Your task to perform on an android device: uninstall "LinkedIn" Image 0: 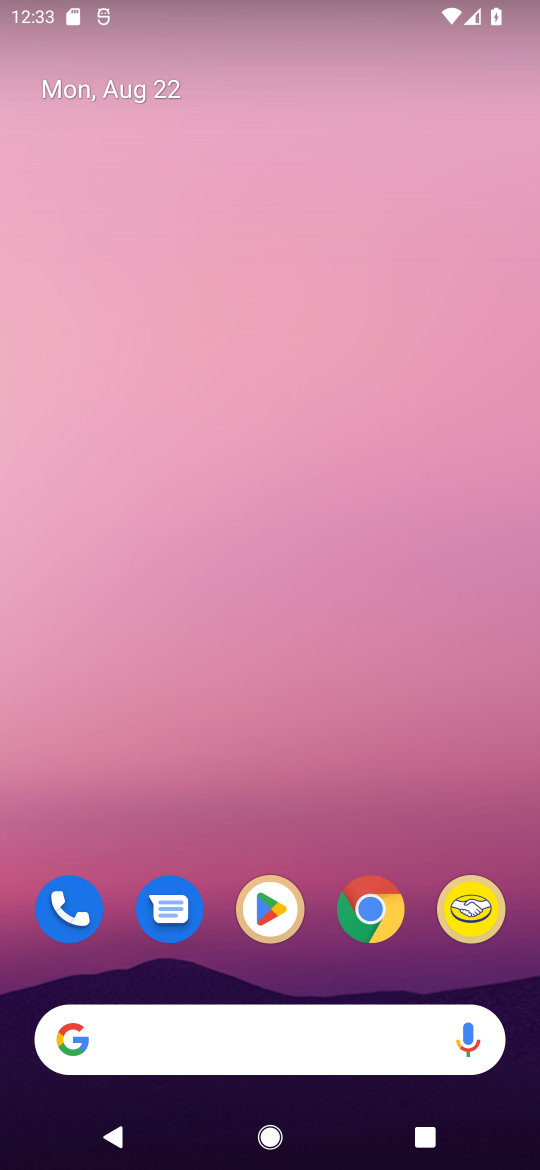
Step 0: click (281, 907)
Your task to perform on an android device: uninstall "LinkedIn" Image 1: 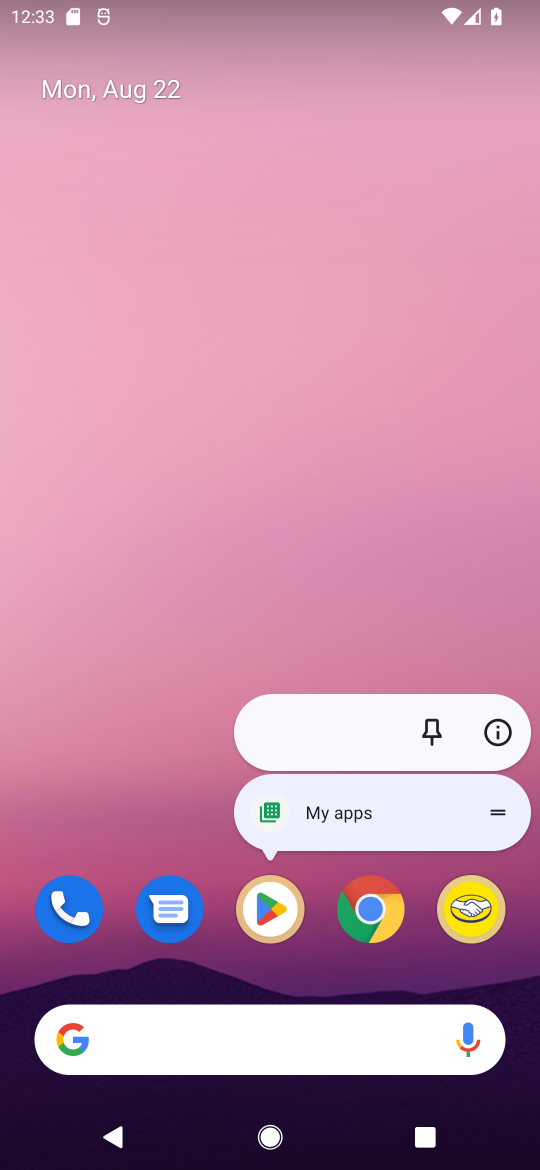
Step 1: click (265, 917)
Your task to perform on an android device: uninstall "LinkedIn" Image 2: 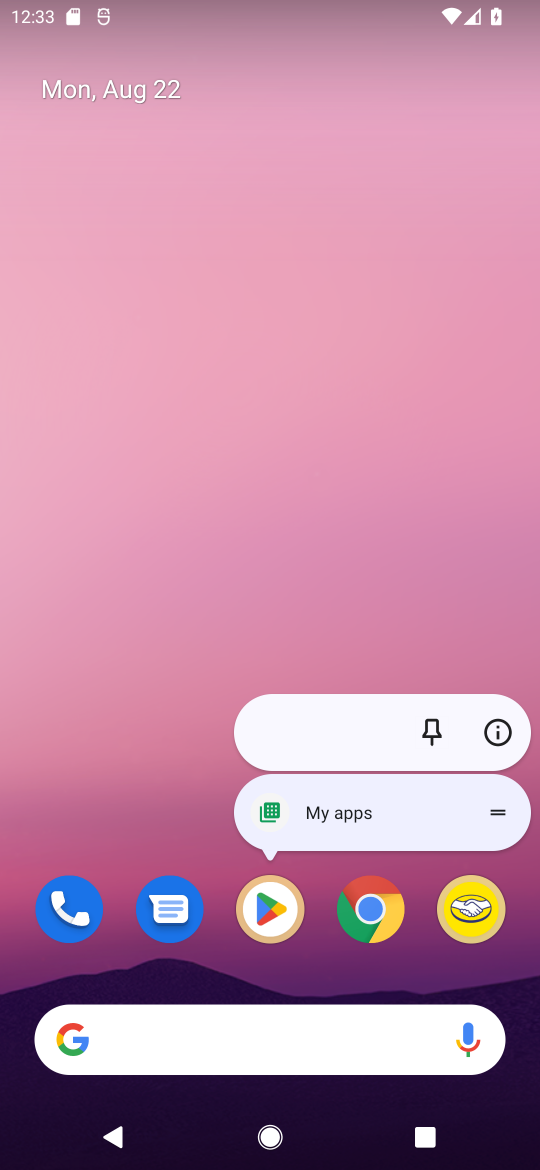
Step 2: click (273, 908)
Your task to perform on an android device: uninstall "LinkedIn" Image 3: 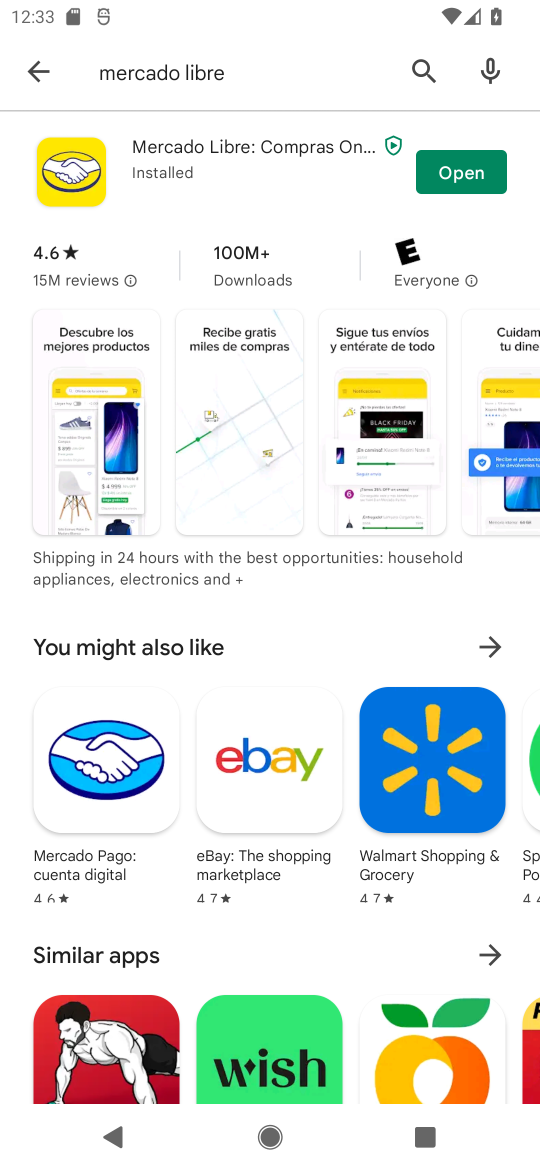
Step 3: click (425, 67)
Your task to perform on an android device: uninstall "LinkedIn" Image 4: 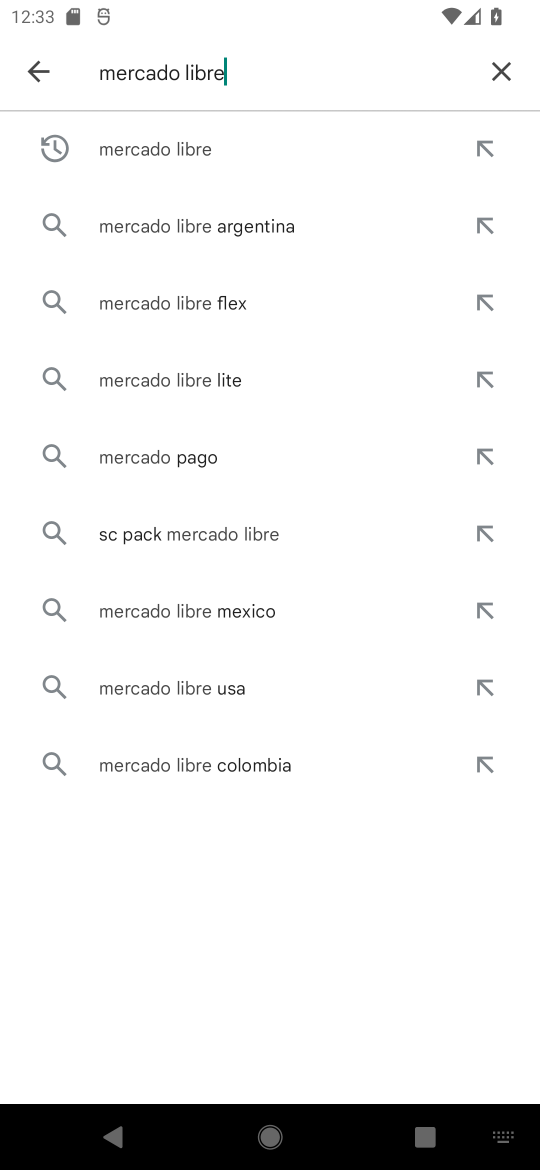
Step 4: click (520, 66)
Your task to perform on an android device: uninstall "LinkedIn" Image 5: 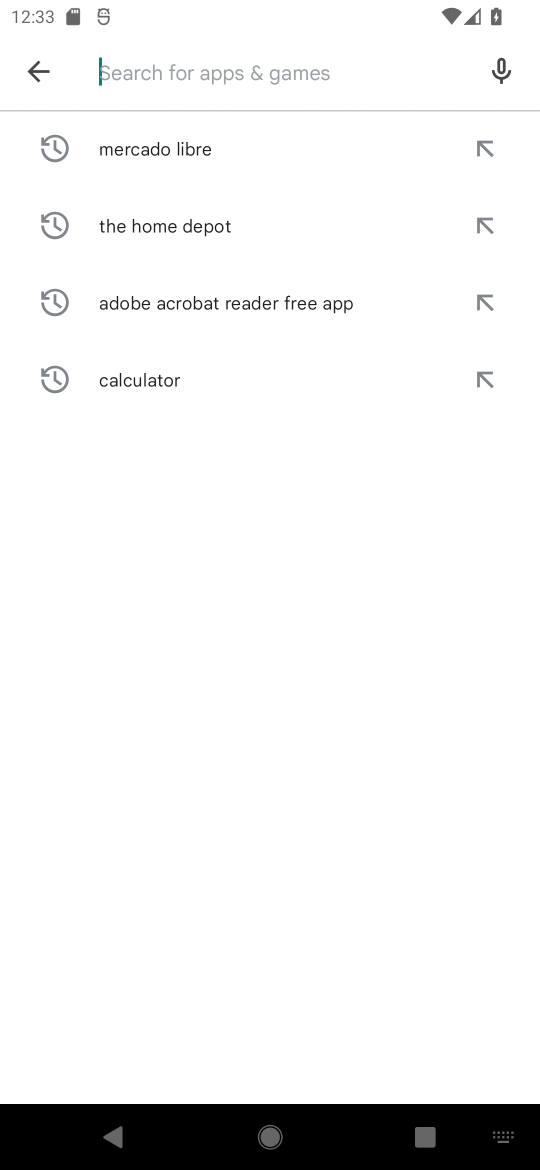
Step 5: click (201, 78)
Your task to perform on an android device: uninstall "LinkedIn" Image 6: 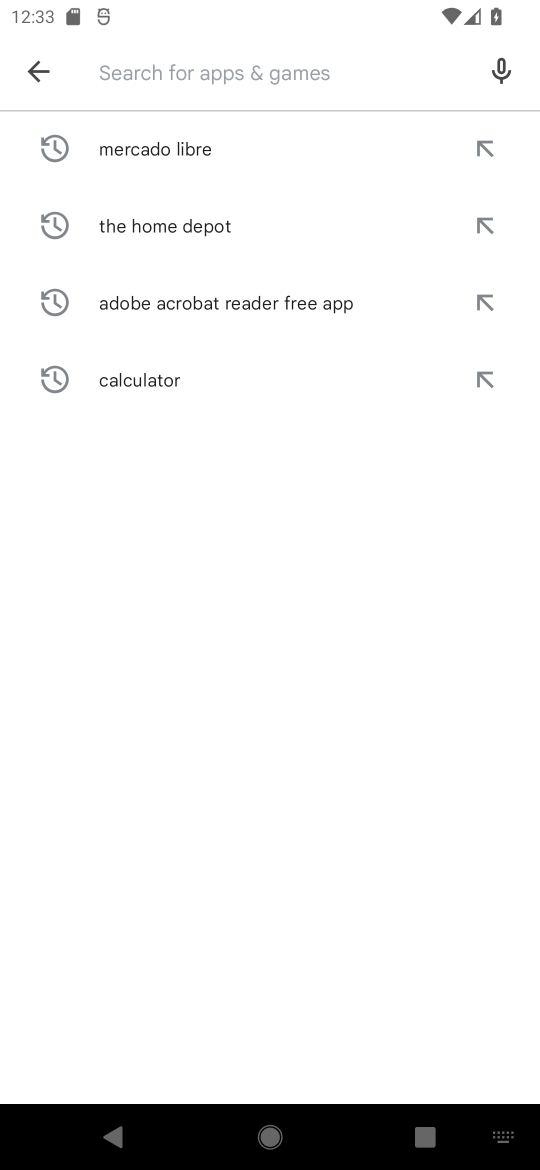
Step 6: click (158, 53)
Your task to perform on an android device: uninstall "LinkedIn" Image 7: 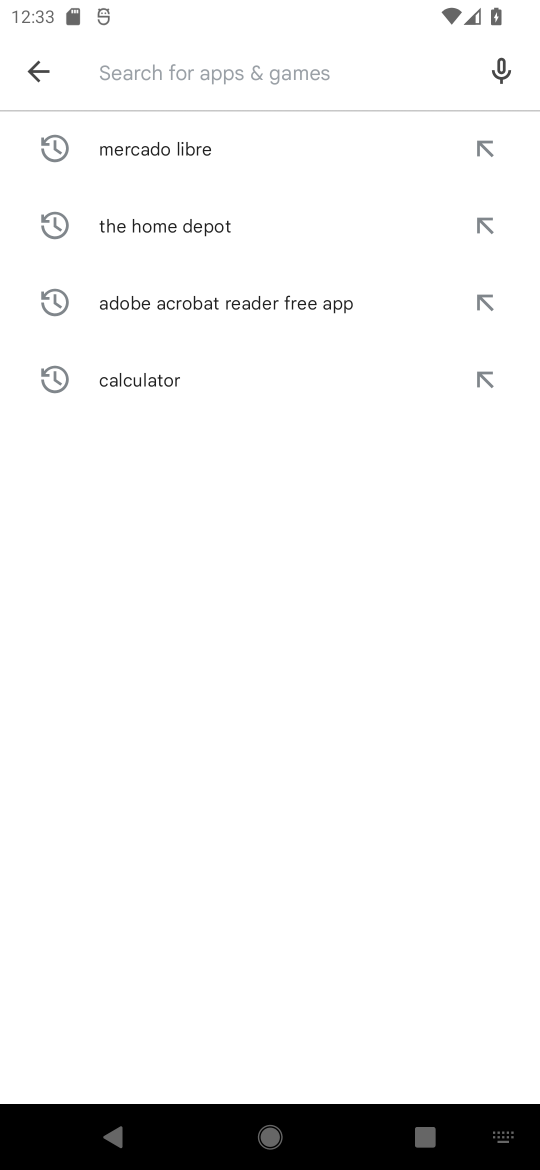
Step 7: type "LinkedIn"
Your task to perform on an android device: uninstall "LinkedIn" Image 8: 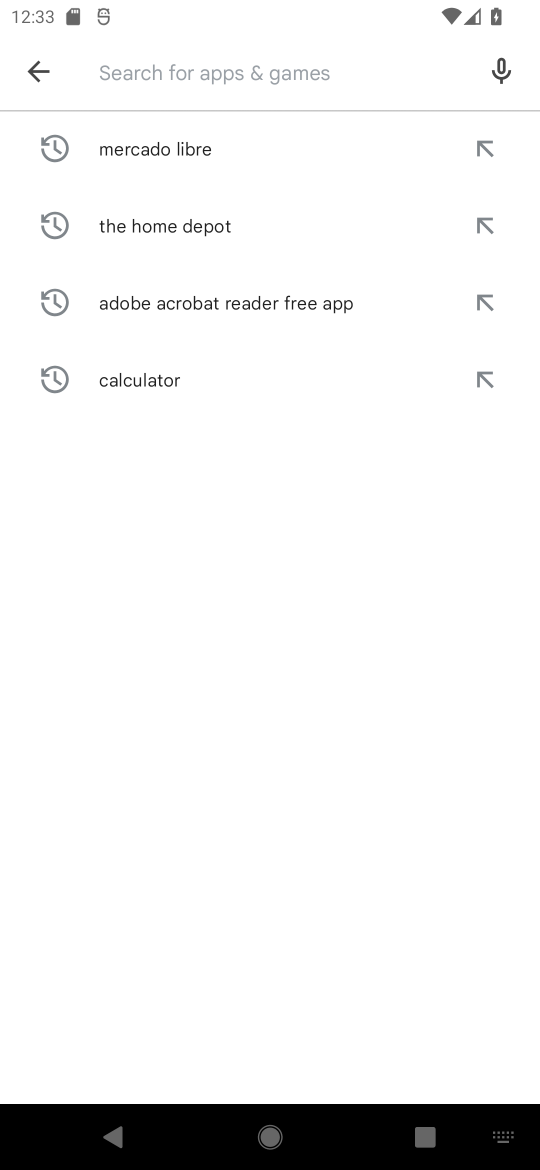
Step 8: click (324, 731)
Your task to perform on an android device: uninstall "LinkedIn" Image 9: 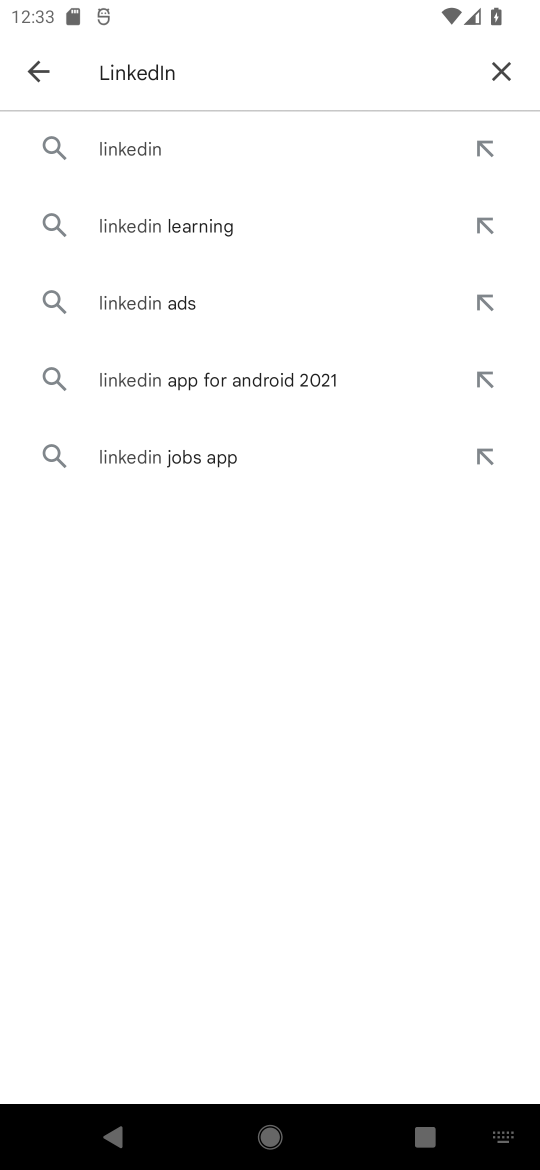
Step 9: click (189, 132)
Your task to perform on an android device: uninstall "LinkedIn" Image 10: 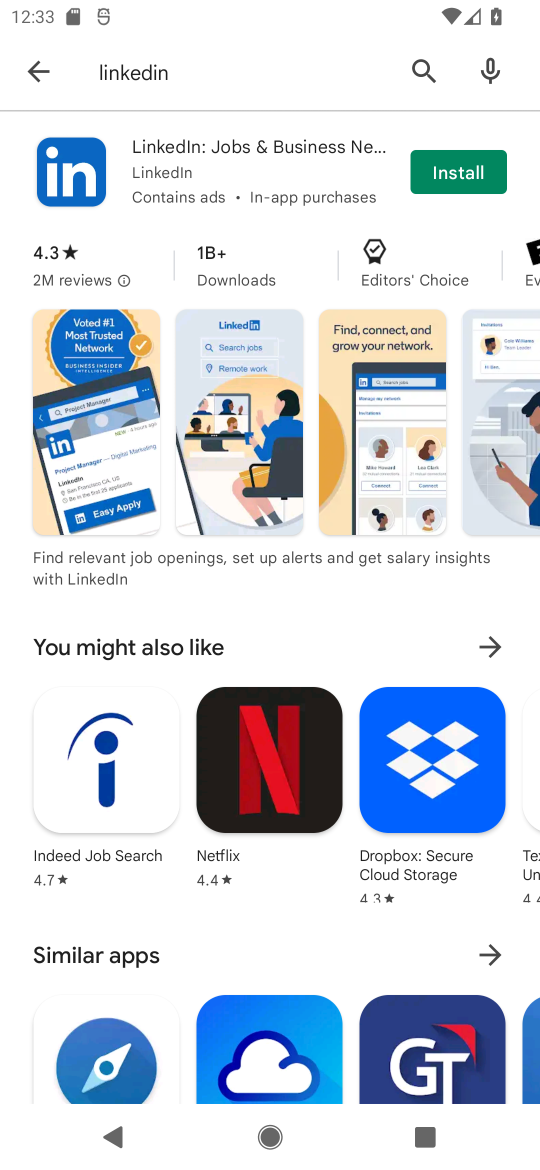
Step 10: click (249, 135)
Your task to perform on an android device: uninstall "LinkedIn" Image 11: 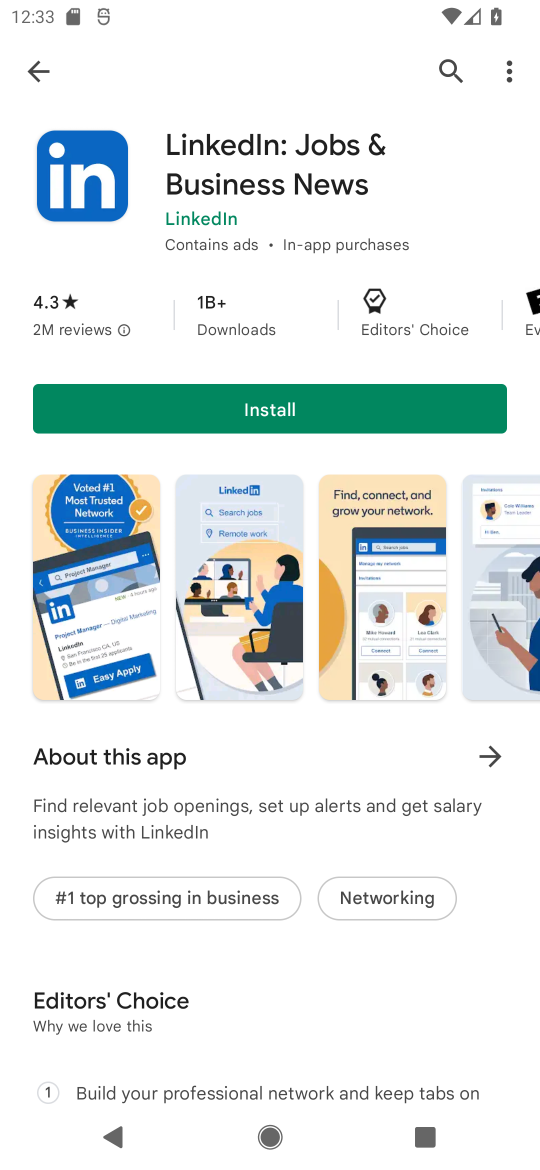
Step 11: task complete